Your task to perform on an android device: star an email in the gmail app Image 0: 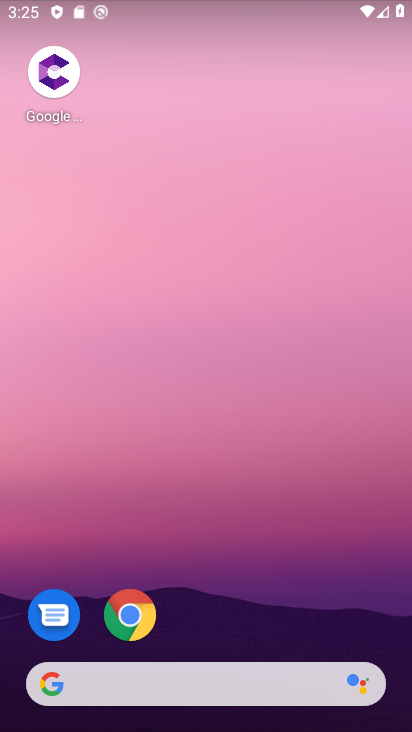
Step 0: drag from (222, 720) to (212, 27)
Your task to perform on an android device: star an email in the gmail app Image 1: 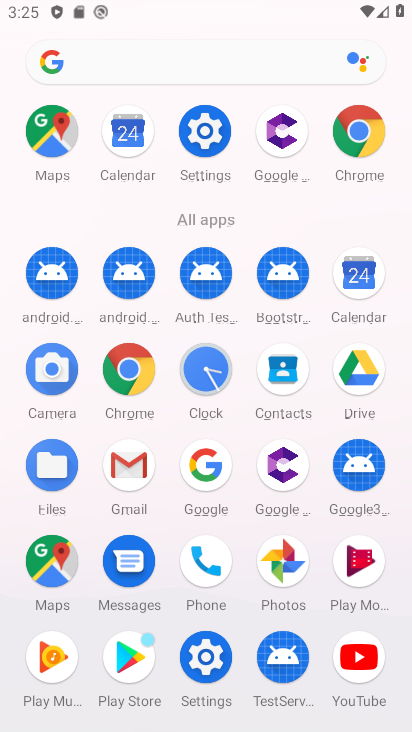
Step 1: click (141, 463)
Your task to perform on an android device: star an email in the gmail app Image 2: 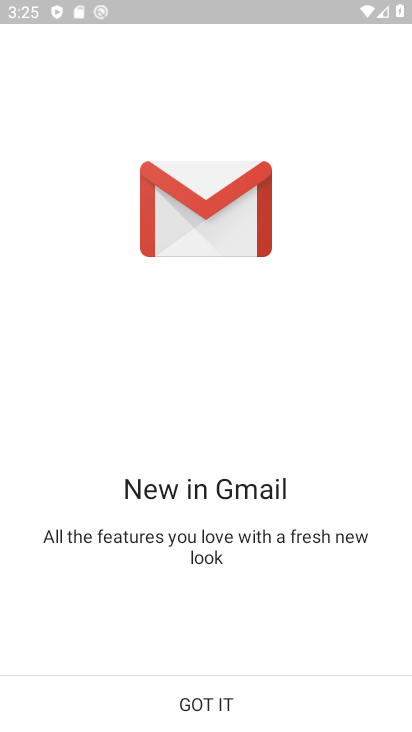
Step 2: click (197, 695)
Your task to perform on an android device: star an email in the gmail app Image 3: 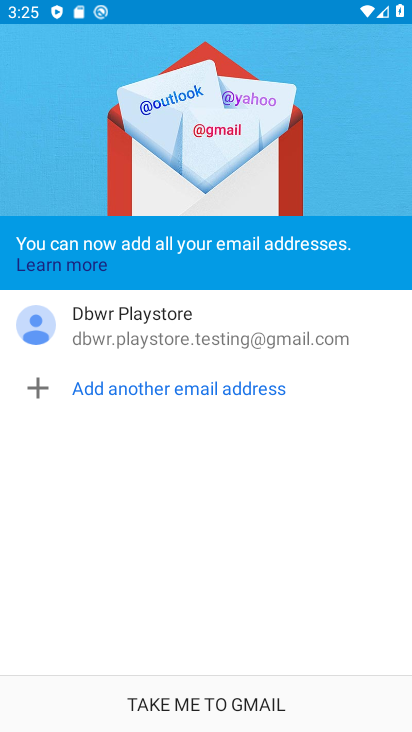
Step 3: click (197, 718)
Your task to perform on an android device: star an email in the gmail app Image 4: 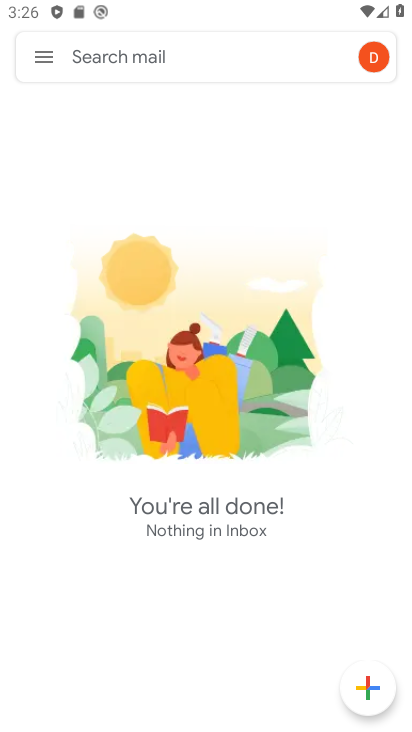
Step 4: task complete